Your task to perform on an android device: turn off location history Image 0: 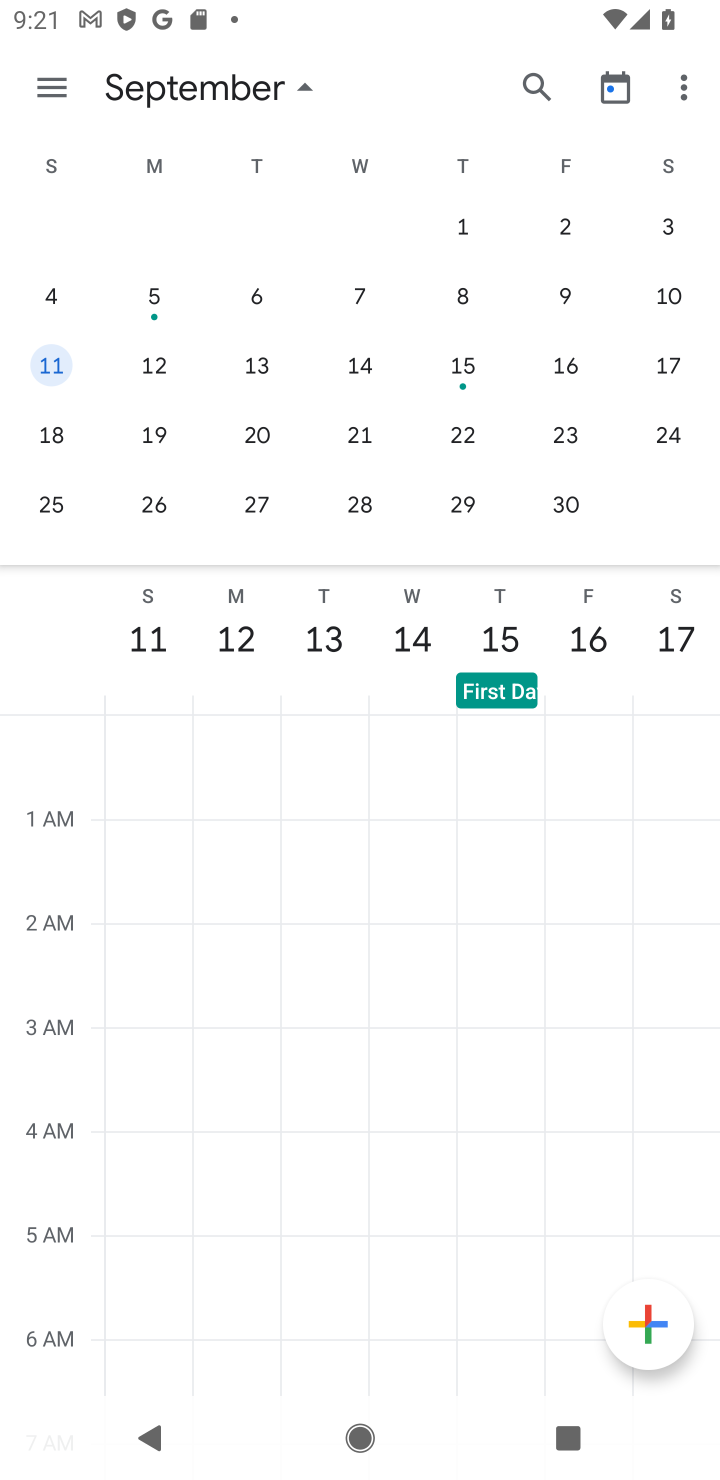
Step 0: press home button
Your task to perform on an android device: turn off location history Image 1: 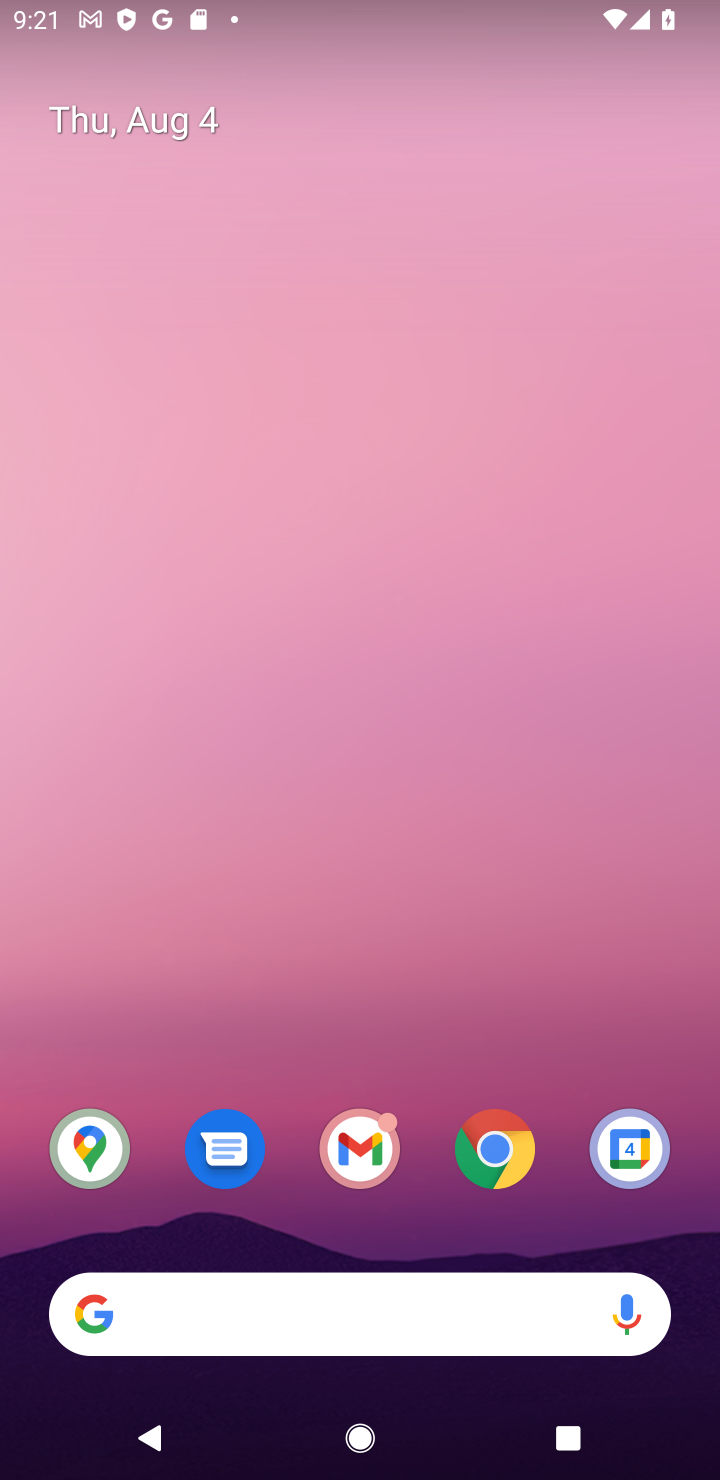
Step 1: click (87, 1149)
Your task to perform on an android device: turn off location history Image 2: 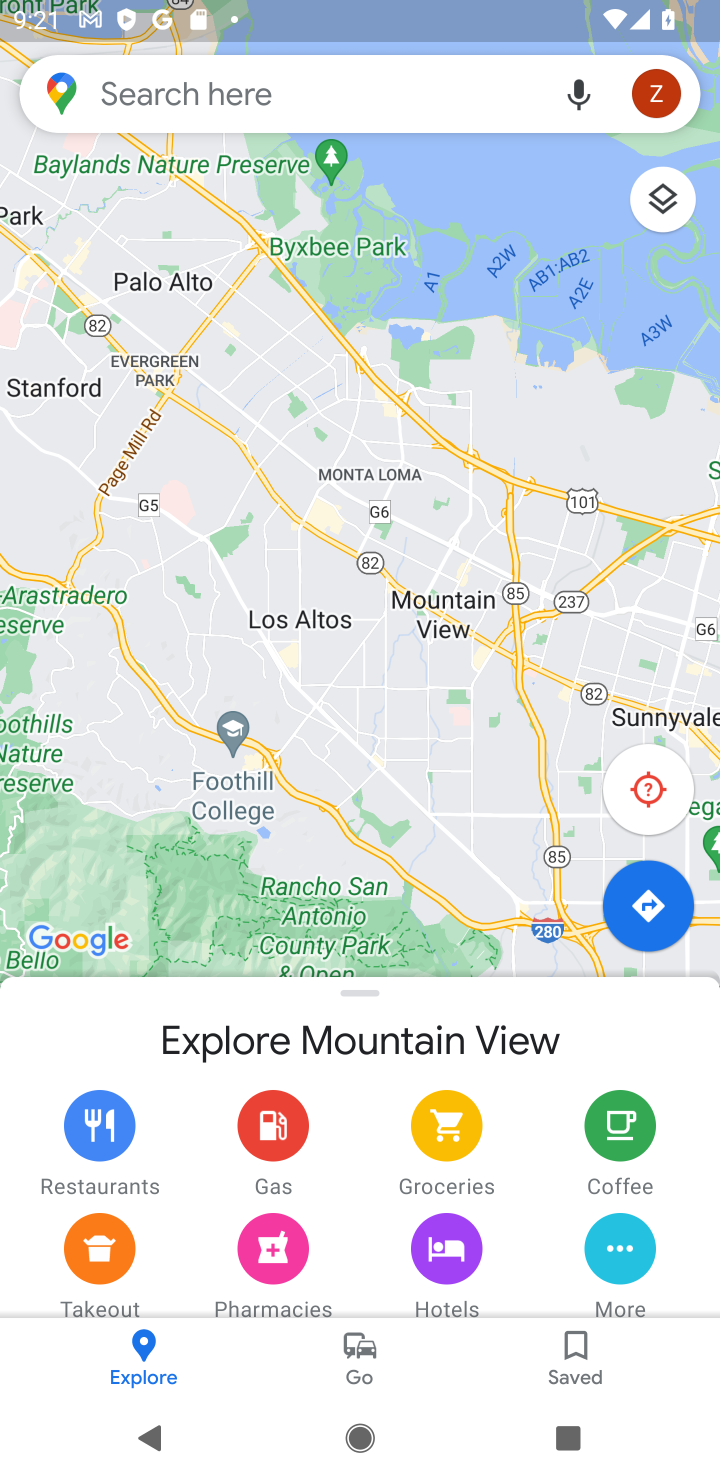
Step 2: click (653, 100)
Your task to perform on an android device: turn off location history Image 3: 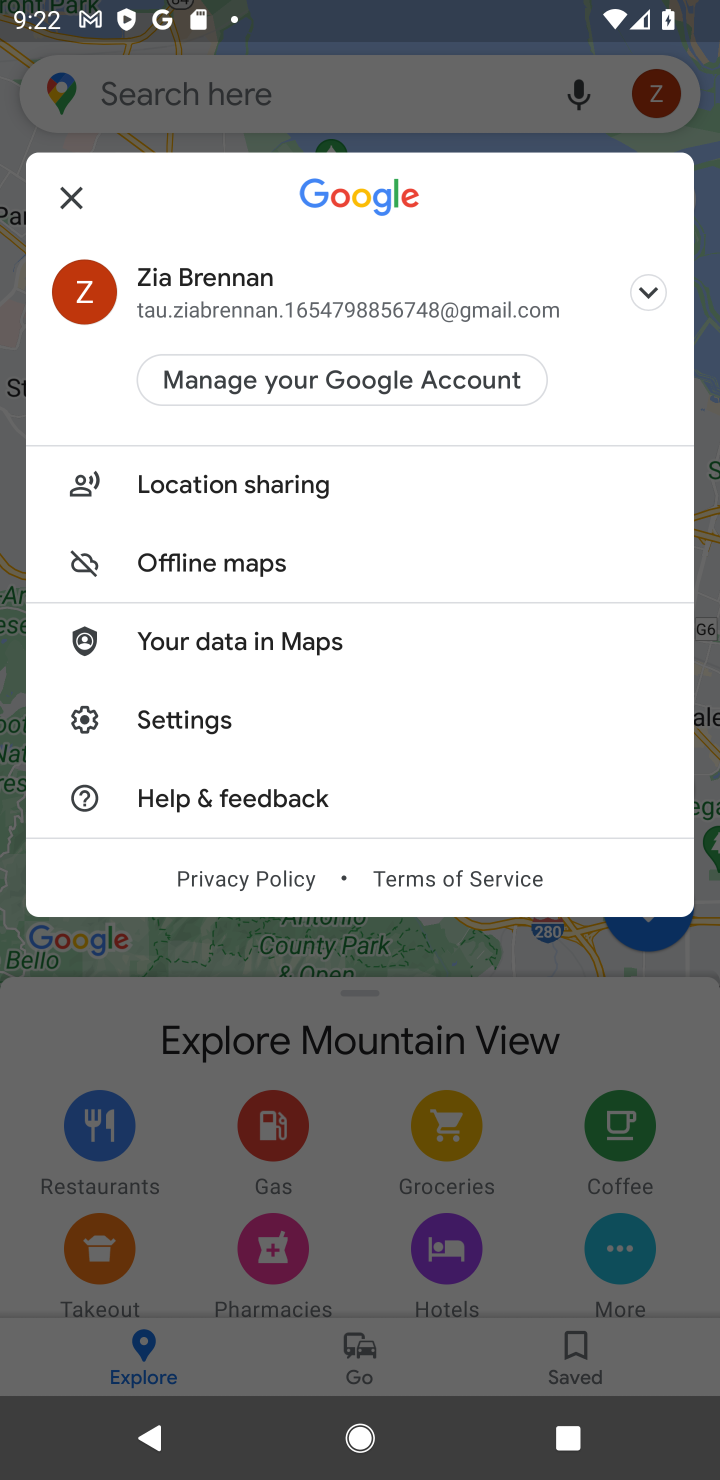
Step 3: click (169, 718)
Your task to perform on an android device: turn off location history Image 4: 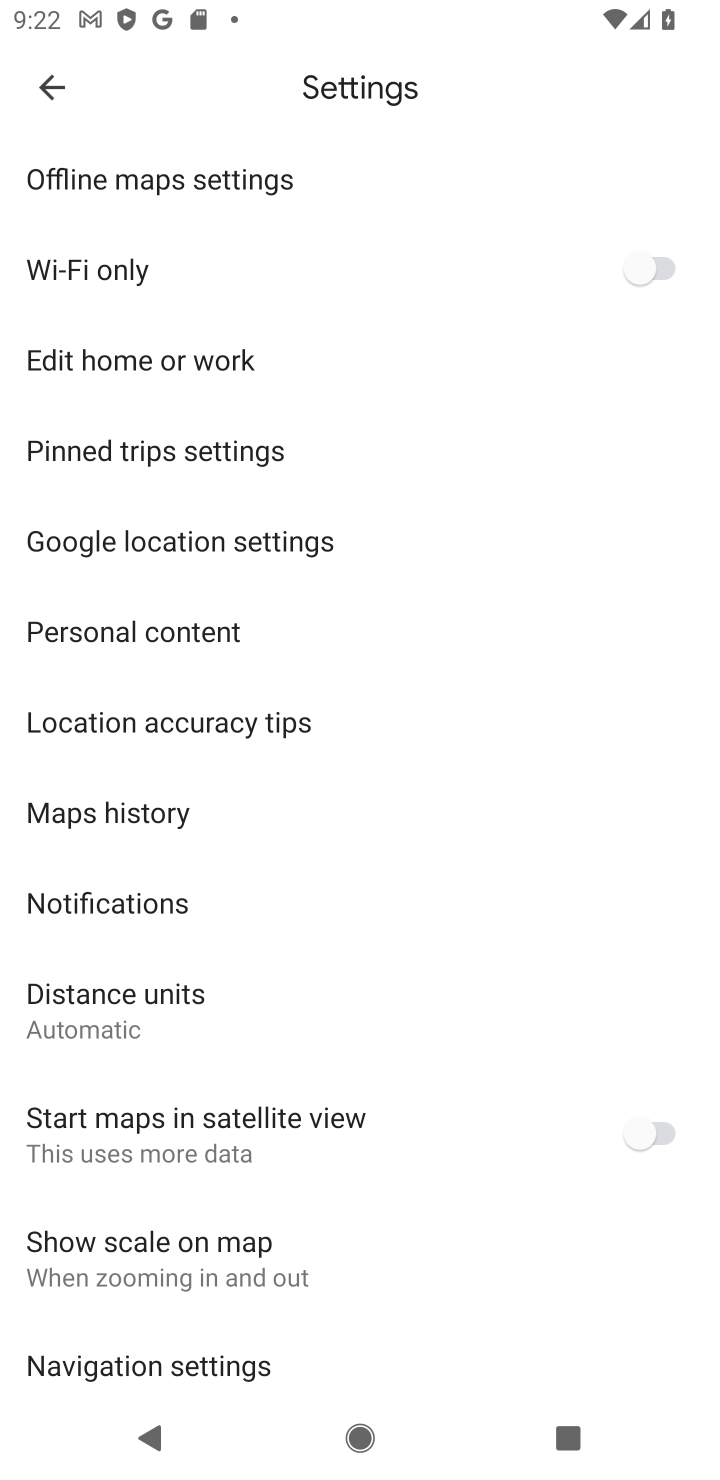
Step 4: click (76, 631)
Your task to perform on an android device: turn off location history Image 5: 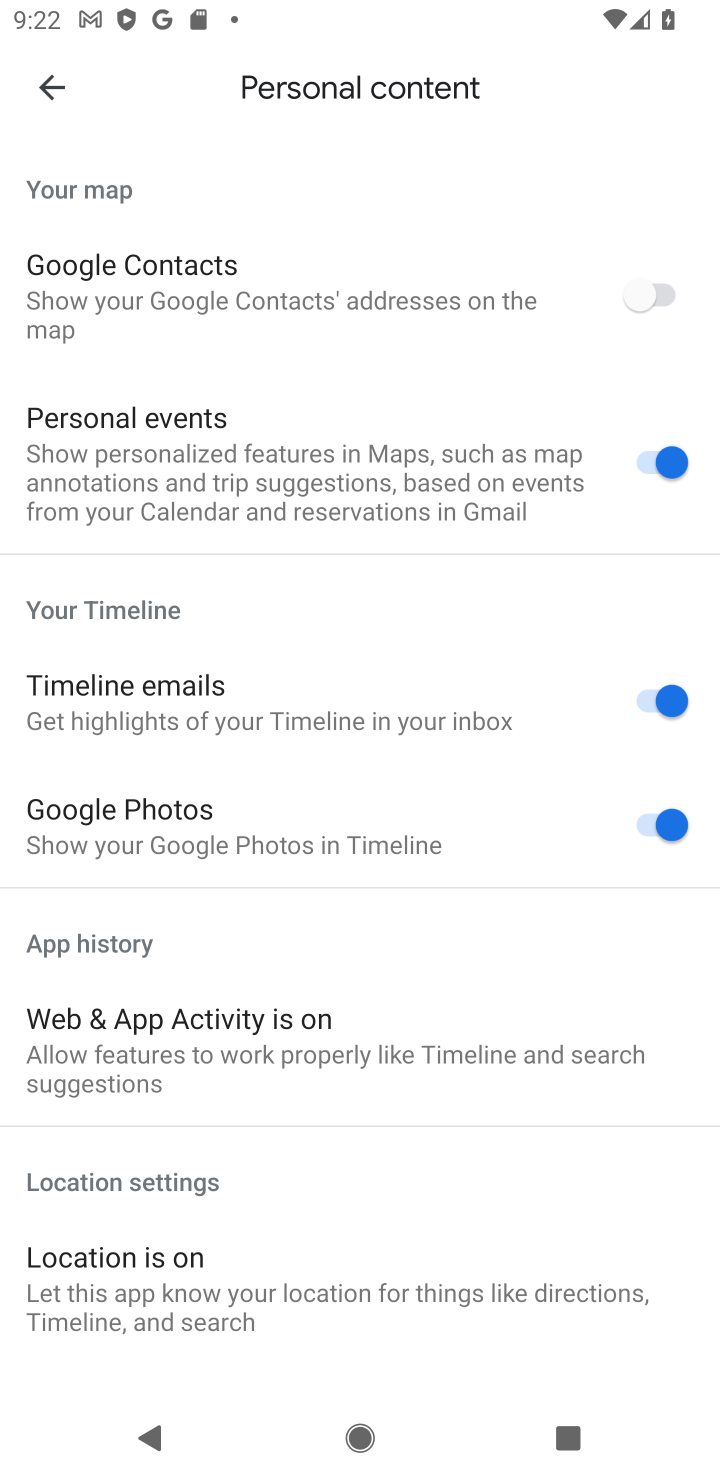
Step 5: task complete